Your task to perform on an android device: Go to accessibility settings Image 0: 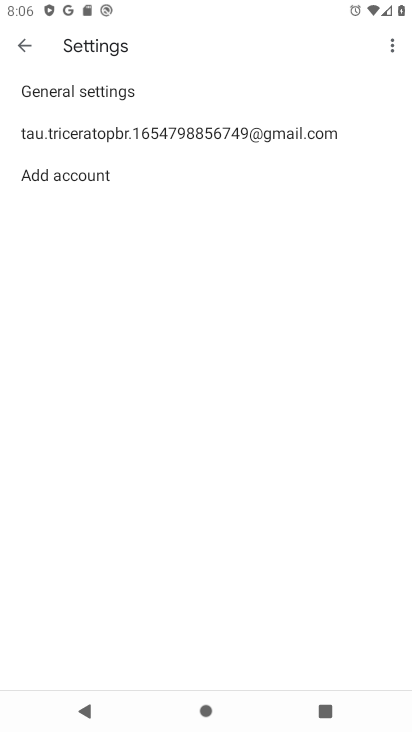
Step 0: press home button
Your task to perform on an android device: Go to accessibility settings Image 1: 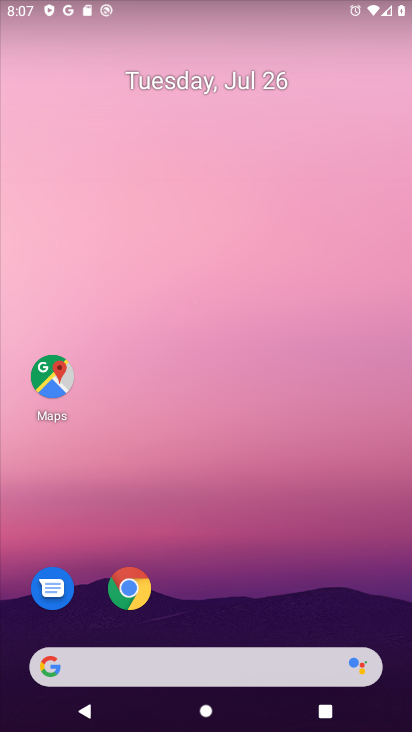
Step 1: drag from (180, 645) to (248, 146)
Your task to perform on an android device: Go to accessibility settings Image 2: 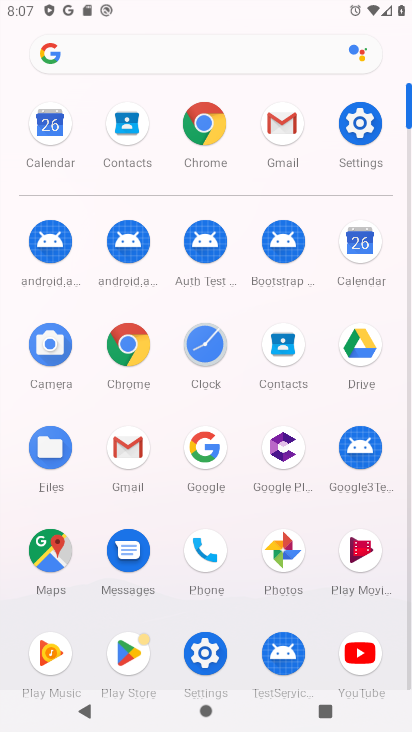
Step 2: click (360, 147)
Your task to perform on an android device: Go to accessibility settings Image 3: 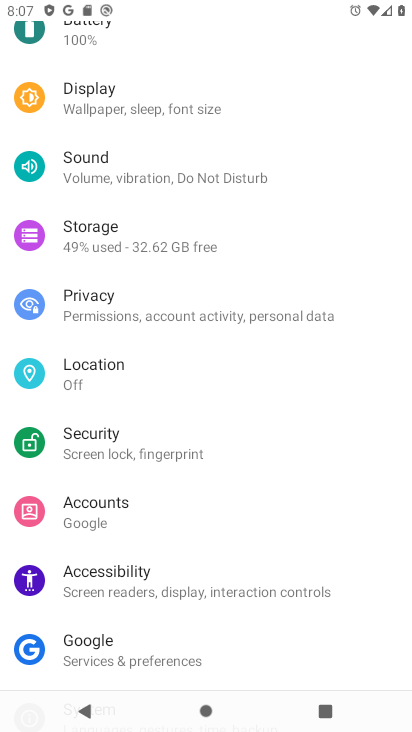
Step 3: click (139, 575)
Your task to perform on an android device: Go to accessibility settings Image 4: 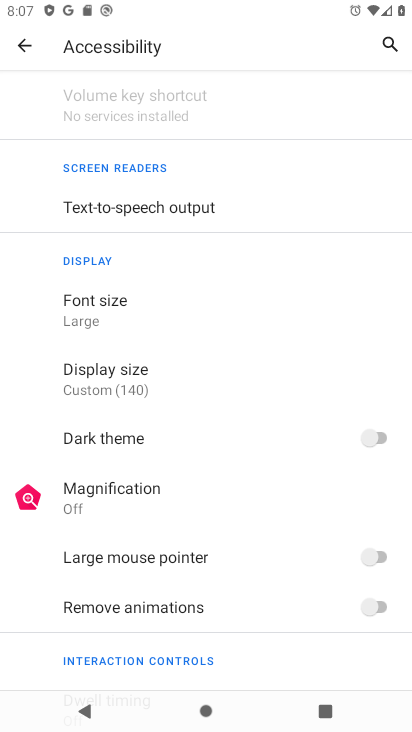
Step 4: task complete